Your task to perform on an android device: toggle airplane mode Image 0: 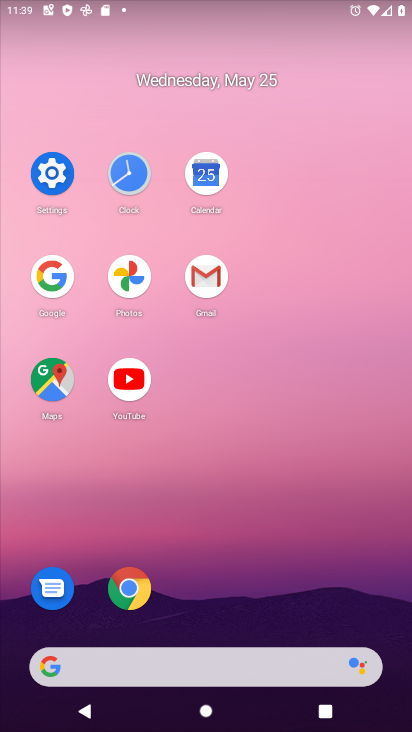
Step 0: click (49, 178)
Your task to perform on an android device: toggle airplane mode Image 1: 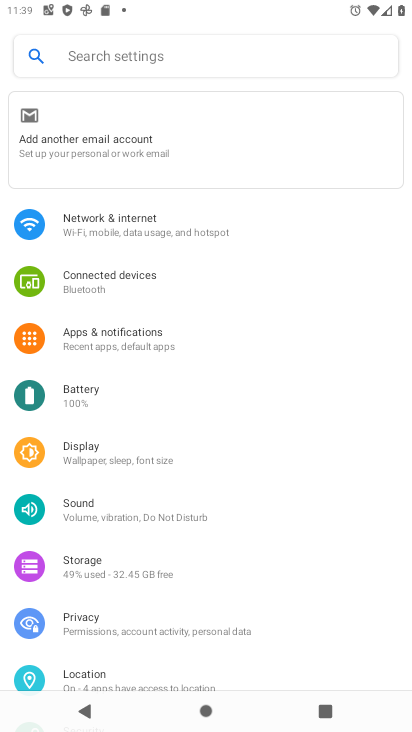
Step 1: click (184, 232)
Your task to perform on an android device: toggle airplane mode Image 2: 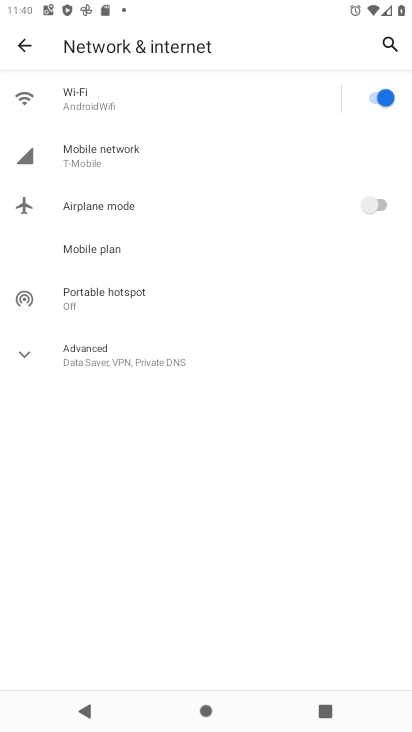
Step 2: click (374, 196)
Your task to perform on an android device: toggle airplane mode Image 3: 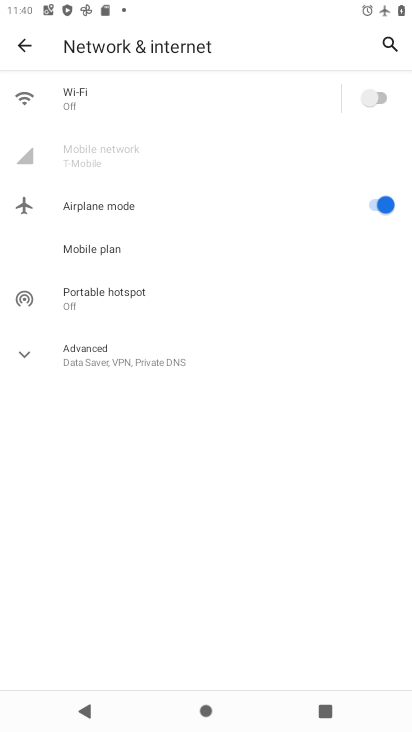
Step 3: task complete